Your task to perform on an android device: toggle sleep mode Image 0: 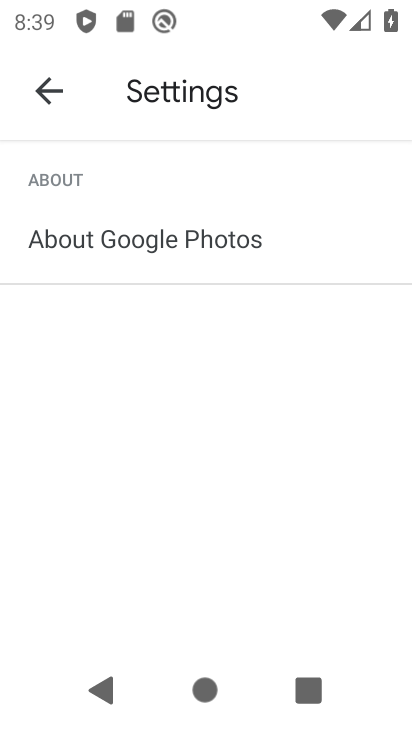
Step 0: press home button
Your task to perform on an android device: toggle sleep mode Image 1: 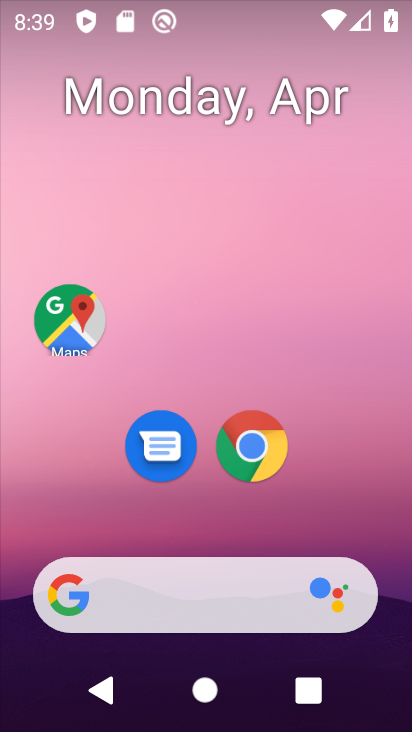
Step 1: drag from (329, 494) to (329, 56)
Your task to perform on an android device: toggle sleep mode Image 2: 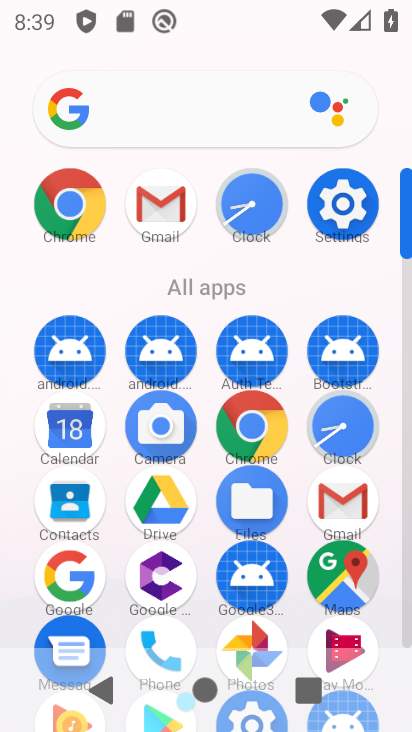
Step 2: click (347, 217)
Your task to perform on an android device: toggle sleep mode Image 3: 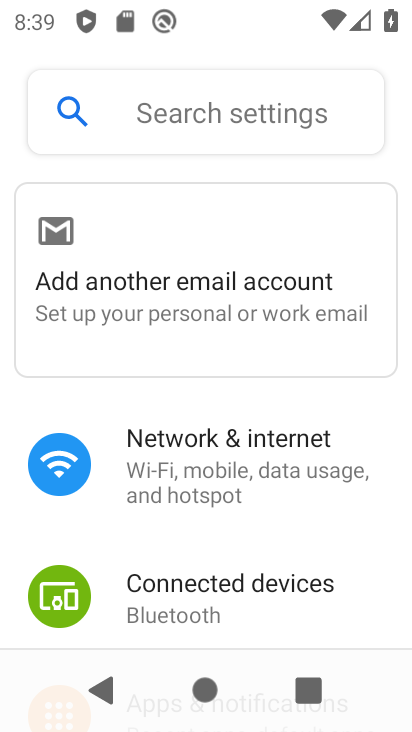
Step 3: drag from (382, 497) to (387, 193)
Your task to perform on an android device: toggle sleep mode Image 4: 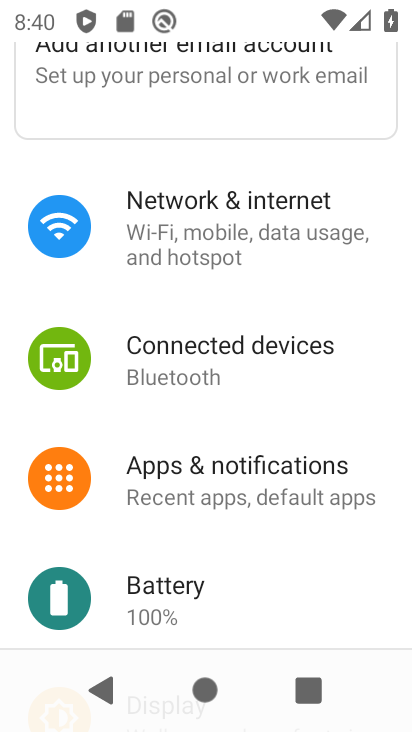
Step 4: drag from (376, 570) to (371, 246)
Your task to perform on an android device: toggle sleep mode Image 5: 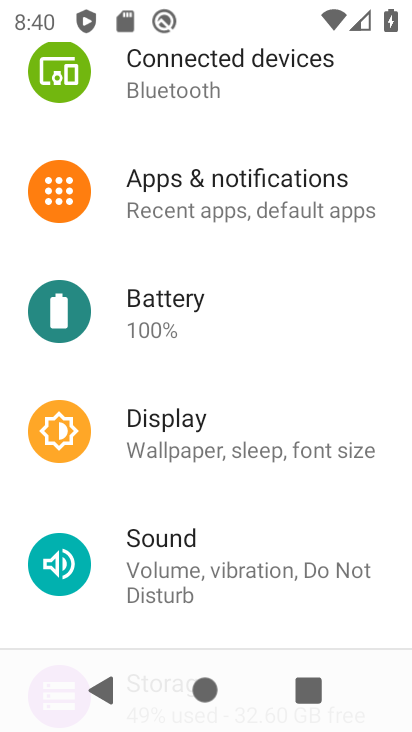
Step 5: click (320, 451)
Your task to perform on an android device: toggle sleep mode Image 6: 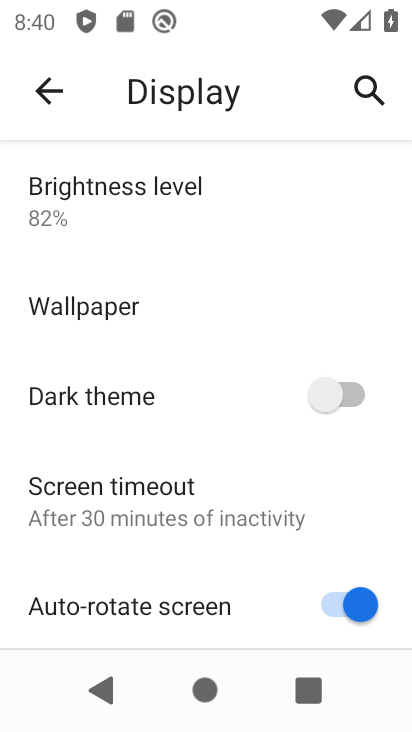
Step 6: drag from (278, 538) to (273, 148)
Your task to perform on an android device: toggle sleep mode Image 7: 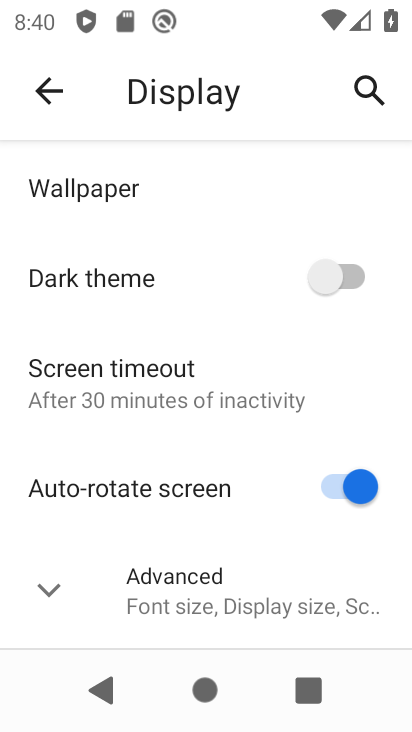
Step 7: click (237, 592)
Your task to perform on an android device: toggle sleep mode Image 8: 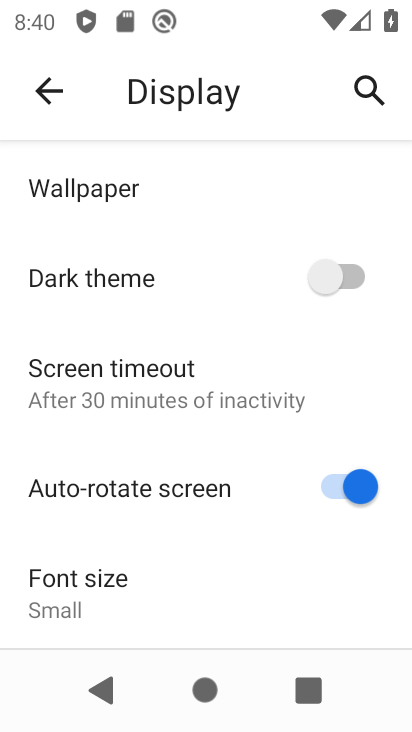
Step 8: task complete